Your task to perform on an android device: Show the shopping cart on target.com. Add razer thresher to the cart on target.com Image 0: 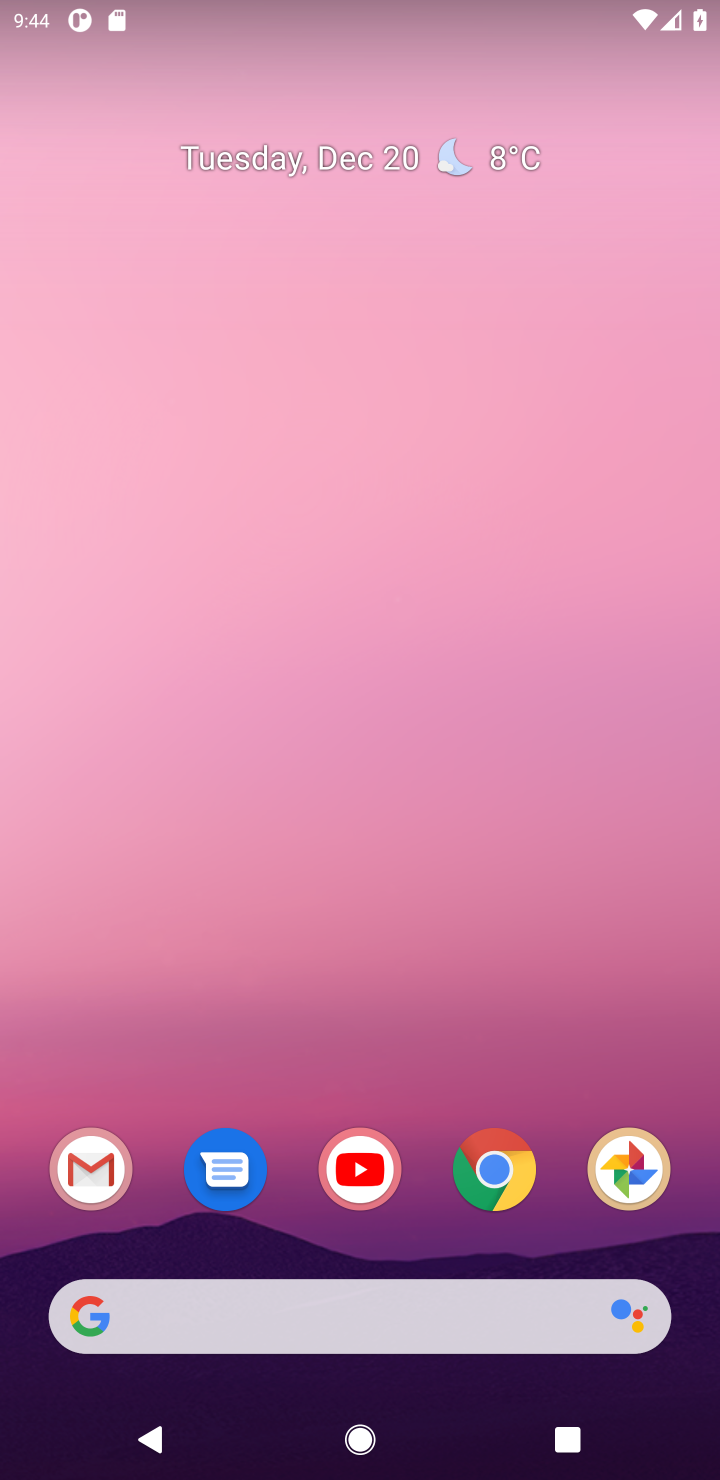
Step 0: click (486, 1180)
Your task to perform on an android device: Show the shopping cart on target.com. Add razer thresher to the cart on target.com Image 1: 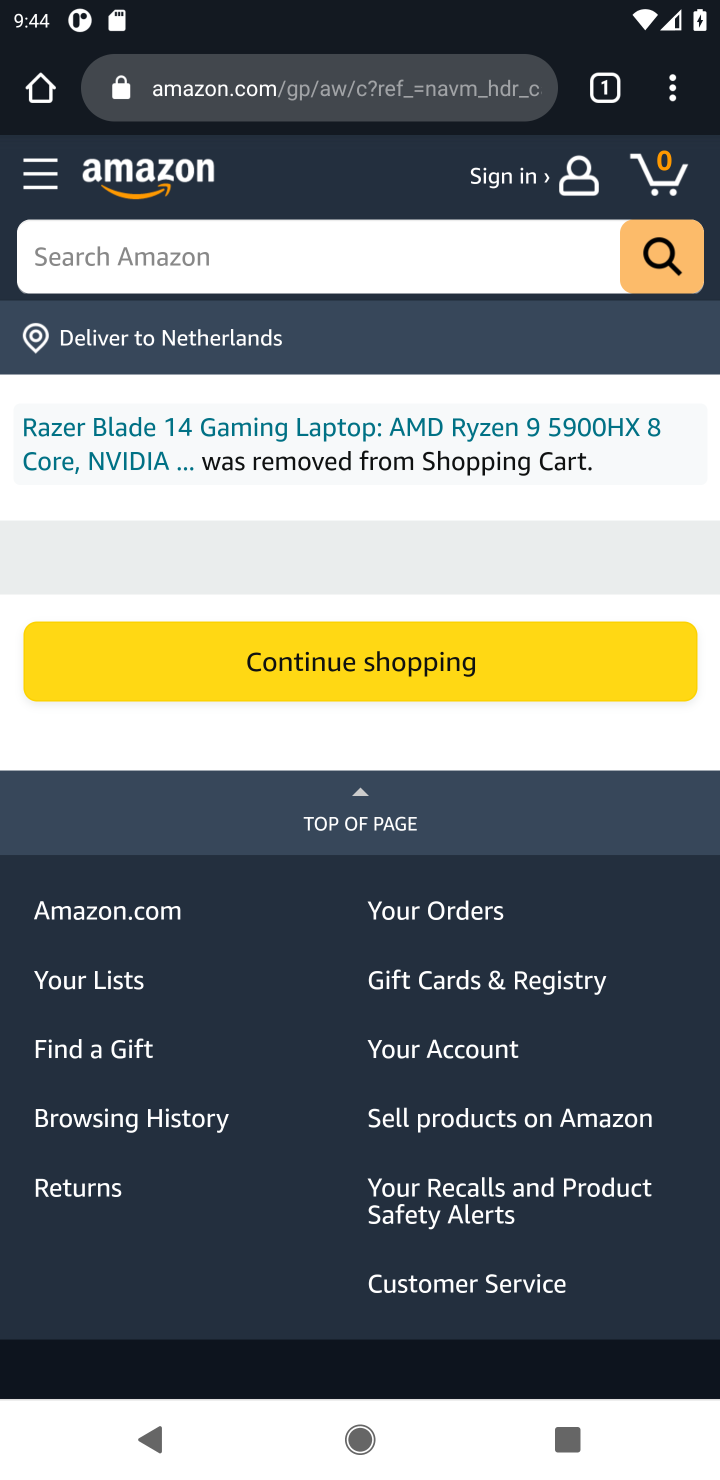
Step 1: click (365, 115)
Your task to perform on an android device: Show the shopping cart on target.com. Add razer thresher to the cart on target.com Image 2: 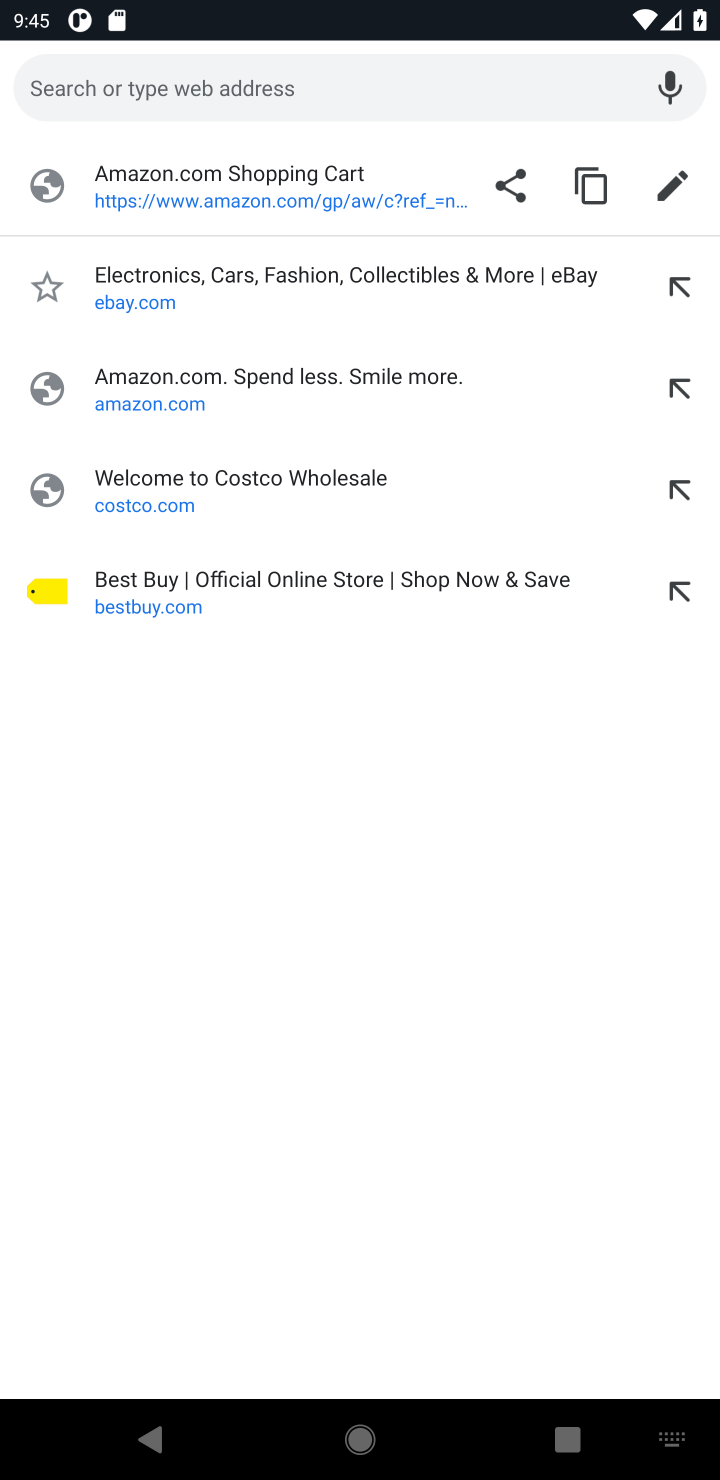
Step 2: type "target"
Your task to perform on an android device: Show the shopping cart on target.com. Add razer thresher to the cart on target.com Image 3: 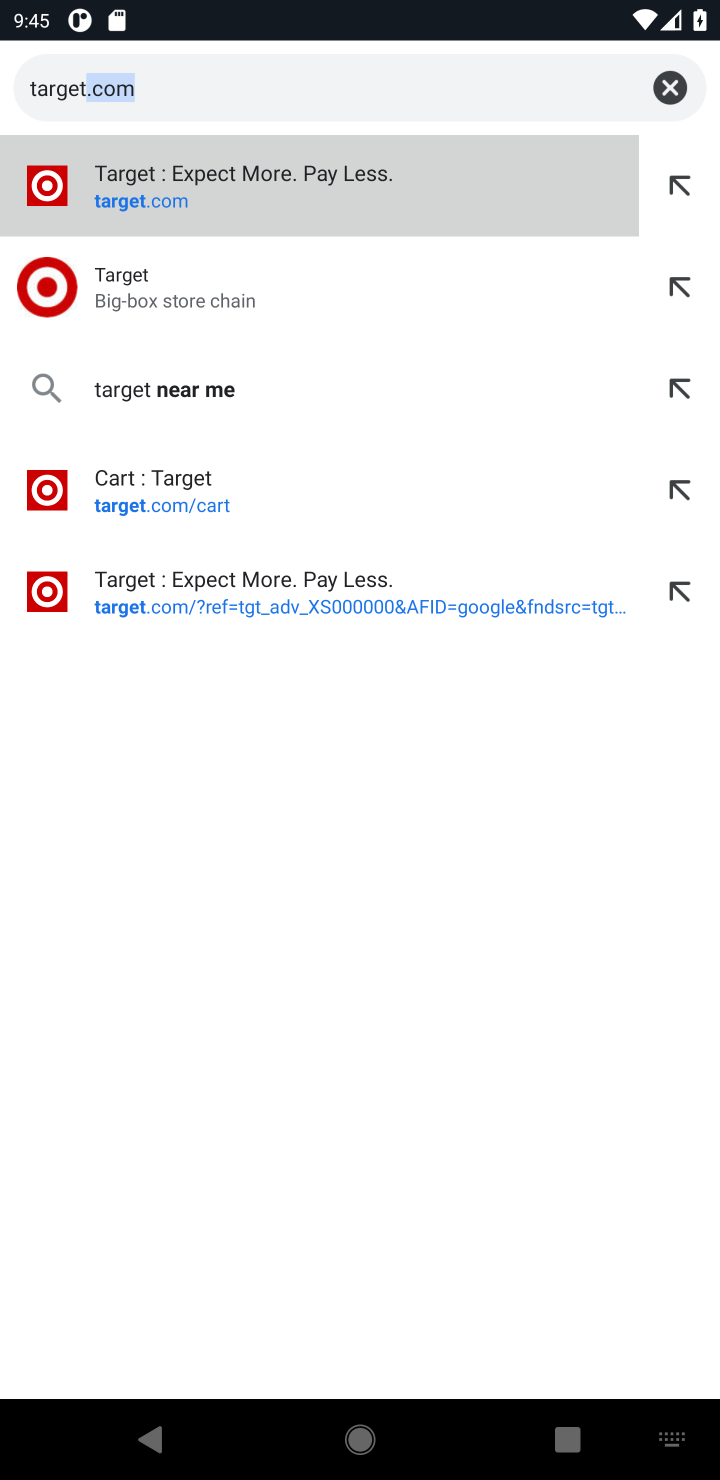
Step 3: click (366, 200)
Your task to perform on an android device: Show the shopping cart on target.com. Add razer thresher to the cart on target.com Image 4: 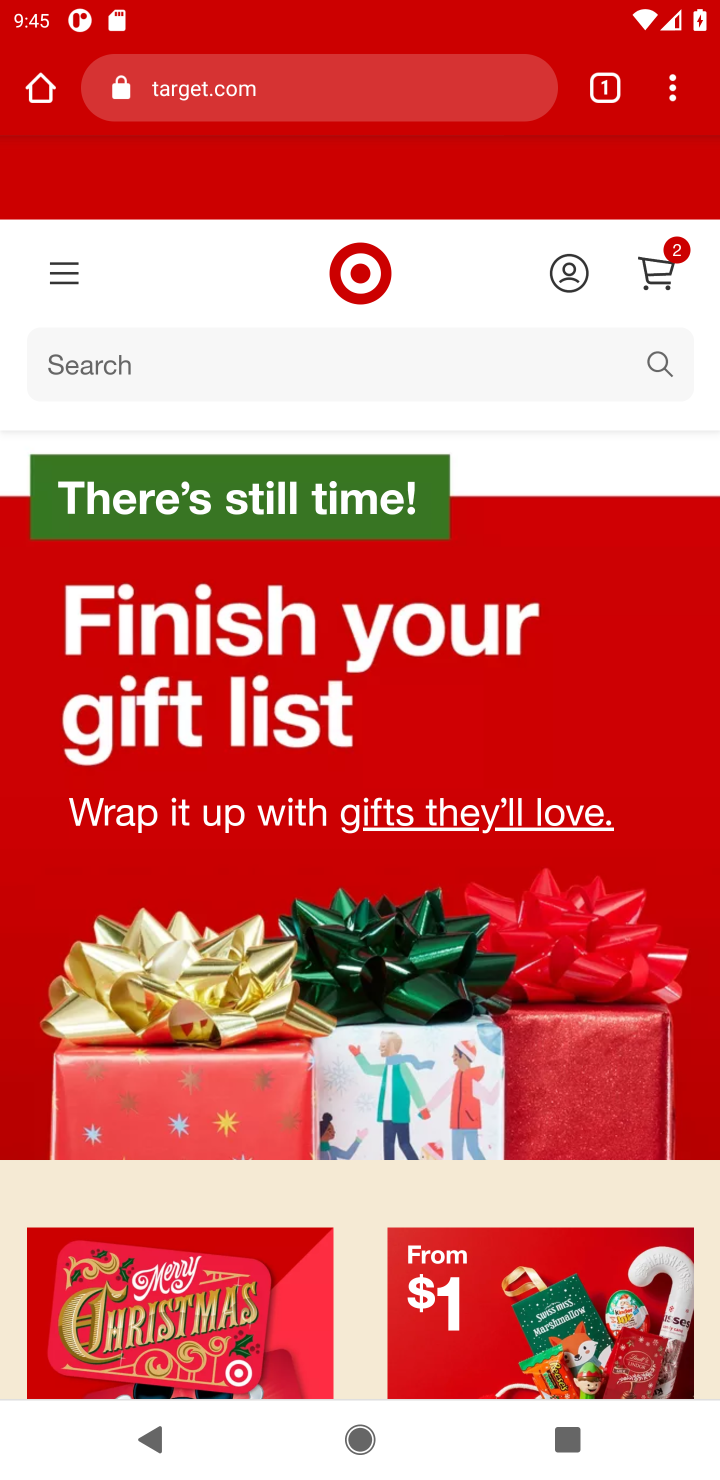
Step 4: click (227, 342)
Your task to perform on an android device: Show the shopping cart on target.com. Add razer thresher to the cart on target.com Image 5: 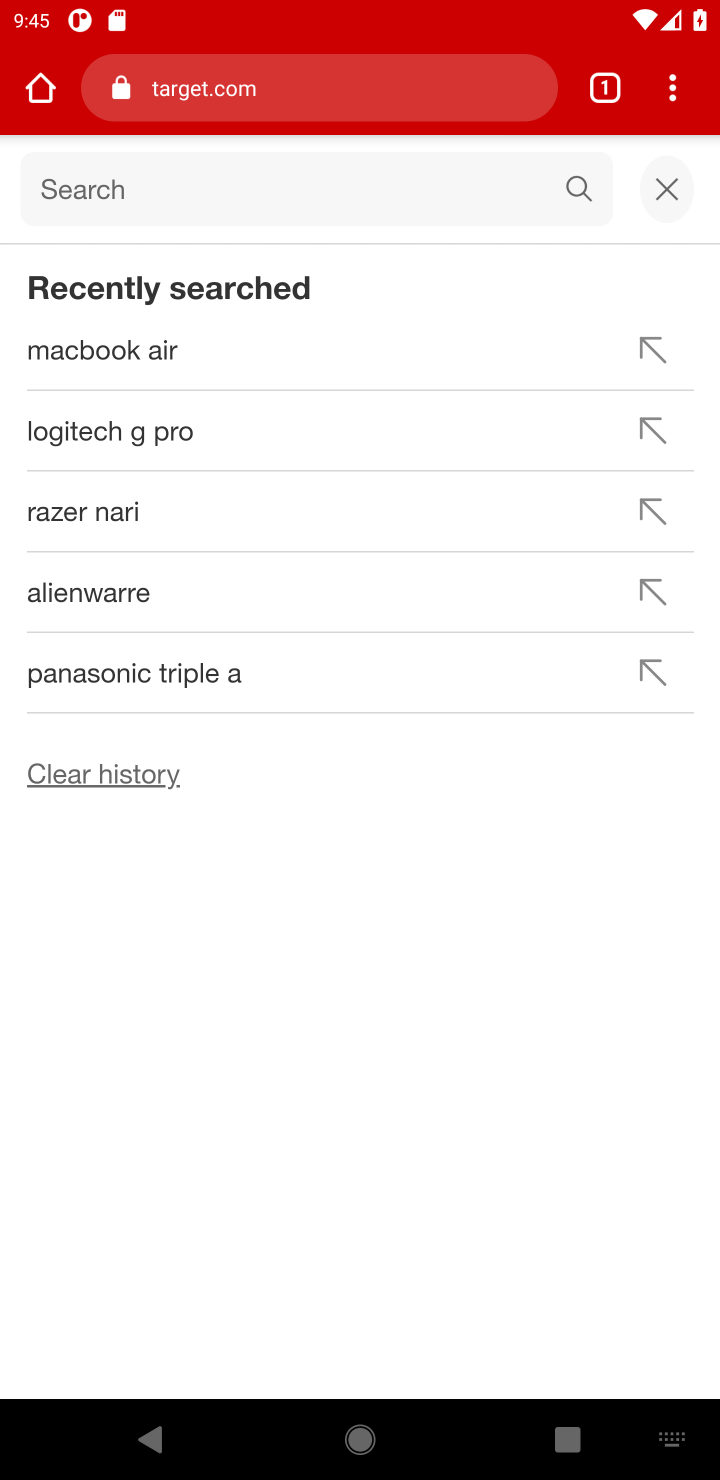
Step 5: type "razer thresher"
Your task to perform on an android device: Show the shopping cart on target.com. Add razer thresher to the cart on target.com Image 6: 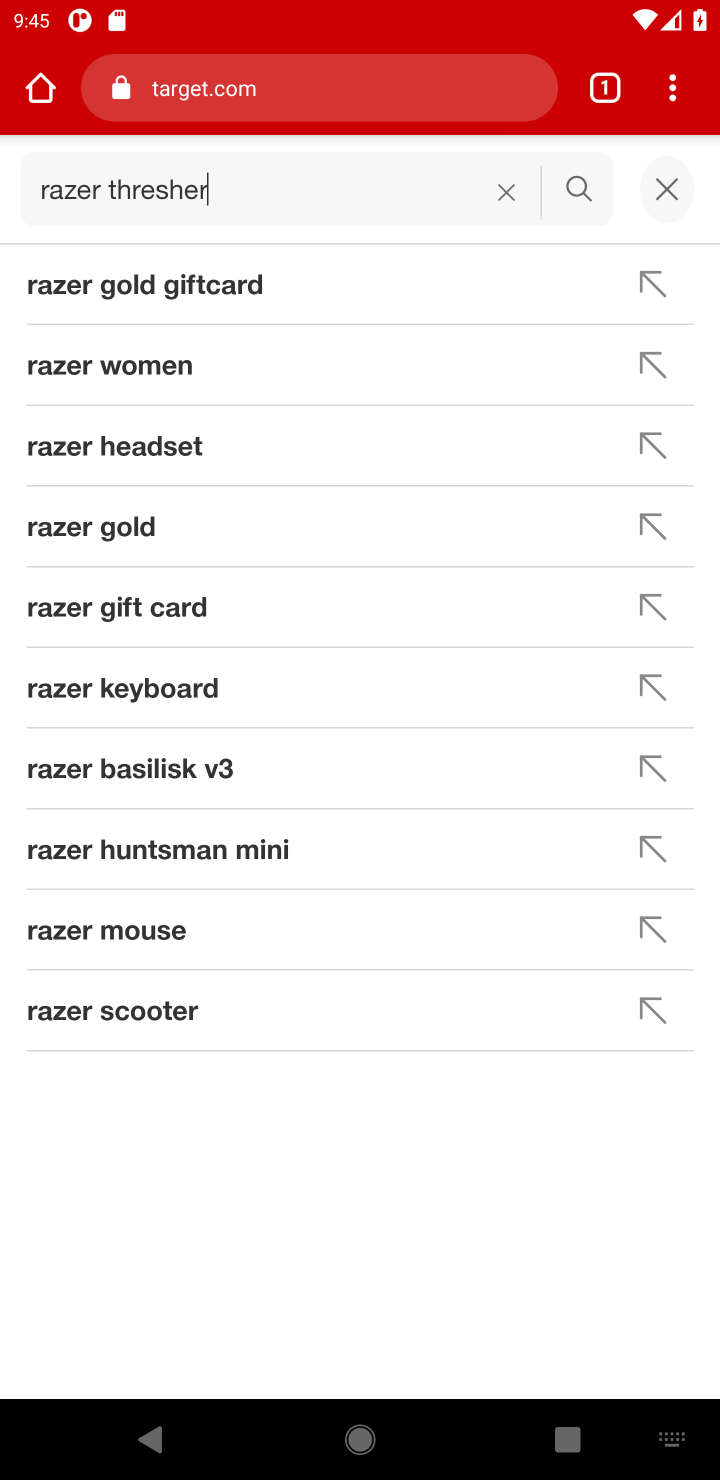
Step 6: click (579, 176)
Your task to perform on an android device: Show the shopping cart on target.com. Add razer thresher to the cart on target.com Image 7: 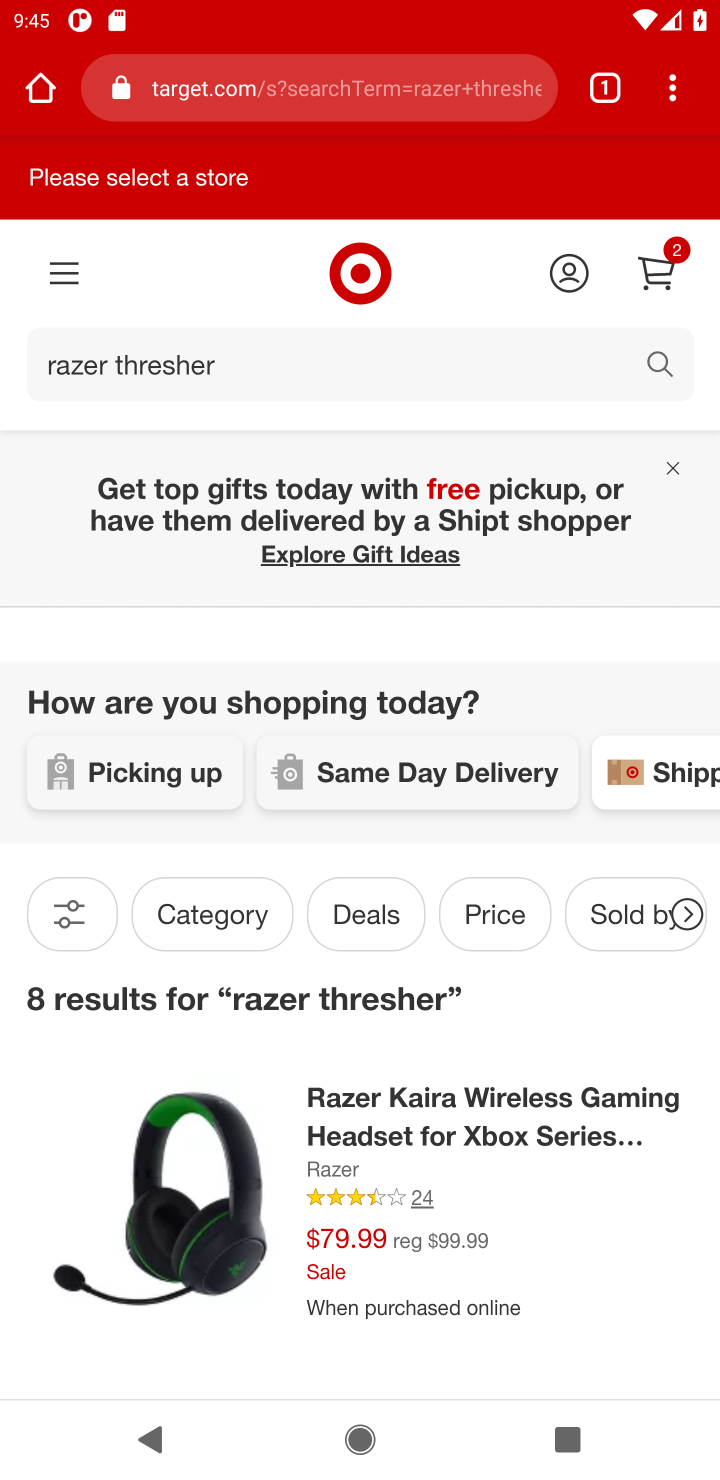
Step 7: click (469, 1126)
Your task to perform on an android device: Show the shopping cart on target.com. Add razer thresher to the cart on target.com Image 8: 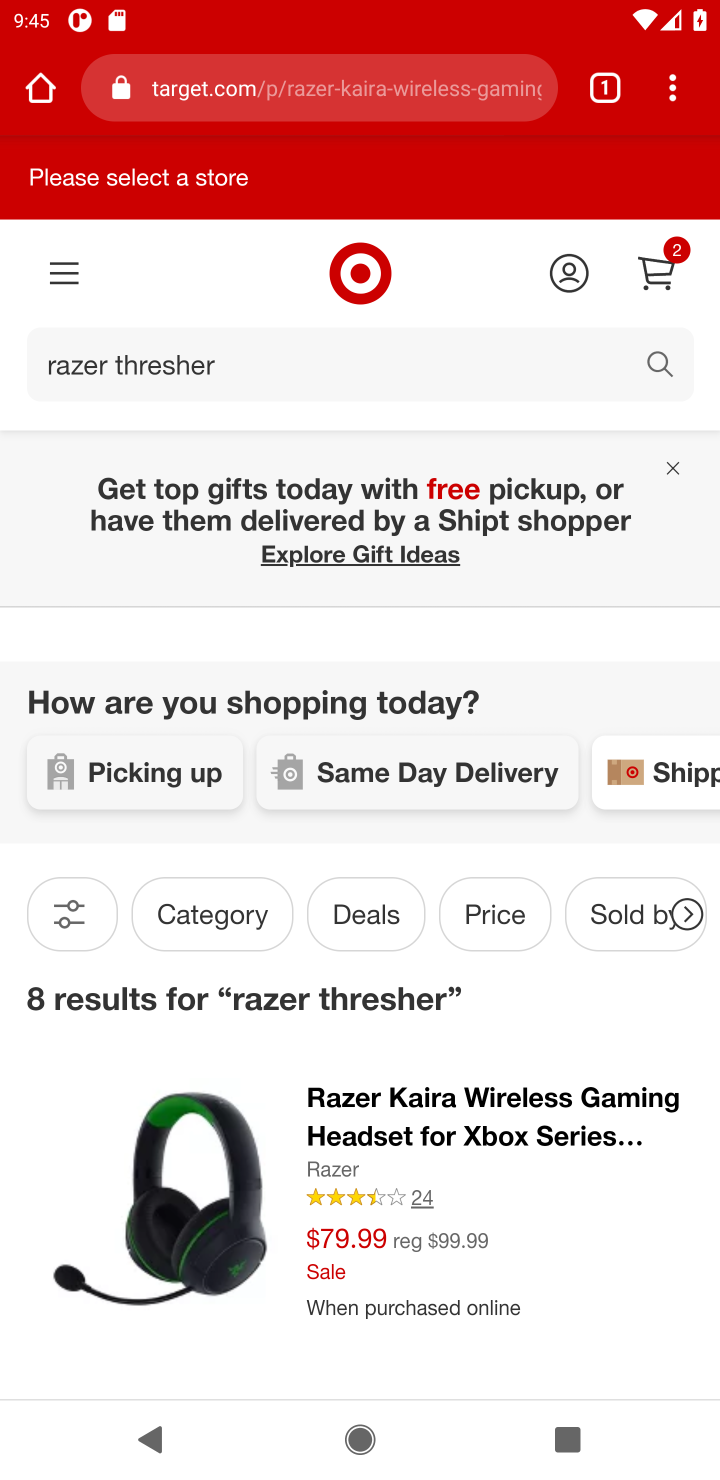
Step 8: task complete